Your task to perform on an android device: Go to accessibility settings Image 0: 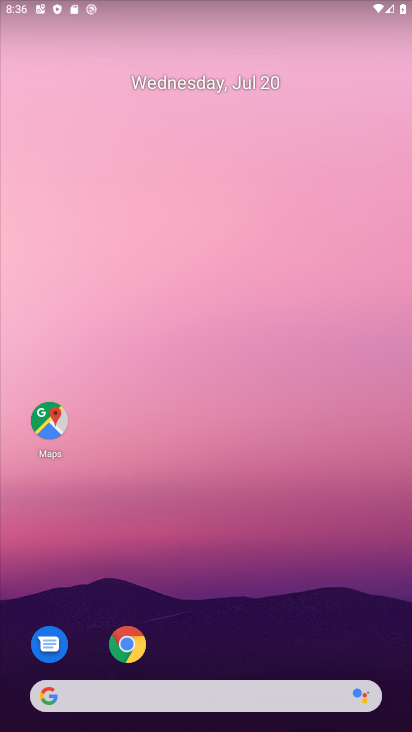
Step 0: drag from (243, 640) to (241, 276)
Your task to perform on an android device: Go to accessibility settings Image 1: 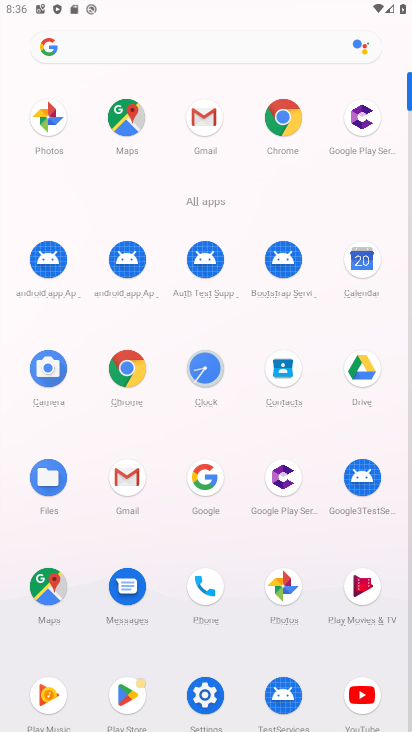
Step 1: click (219, 695)
Your task to perform on an android device: Go to accessibility settings Image 2: 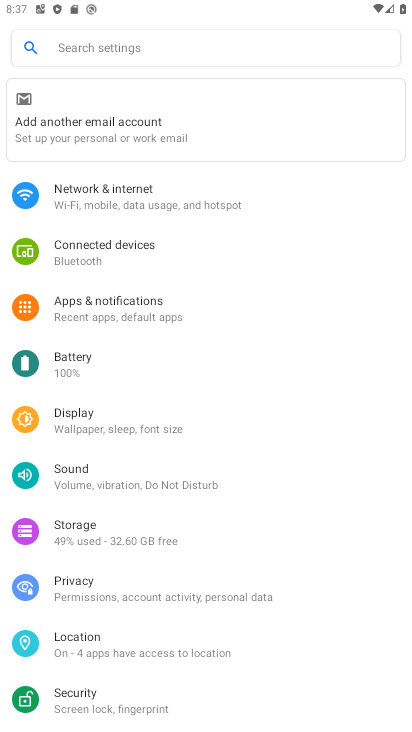
Step 2: drag from (160, 590) to (156, 406)
Your task to perform on an android device: Go to accessibility settings Image 3: 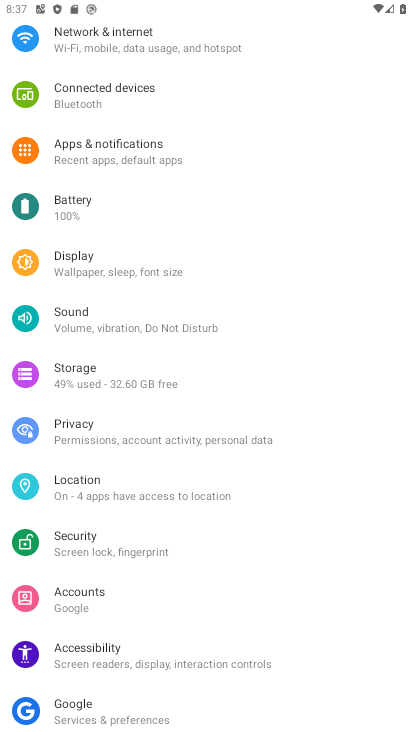
Step 3: click (109, 659)
Your task to perform on an android device: Go to accessibility settings Image 4: 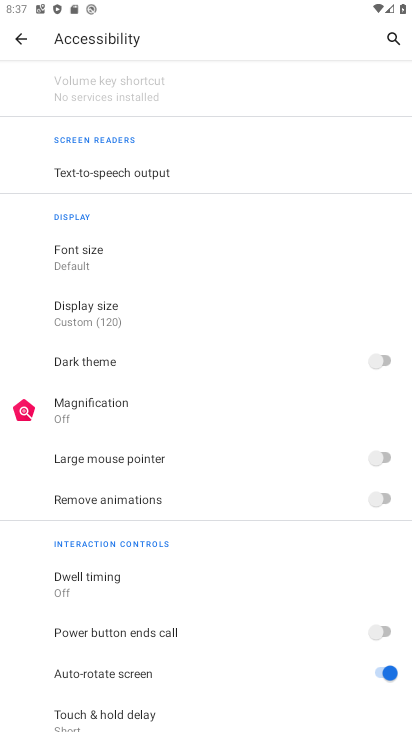
Step 4: click (109, 659)
Your task to perform on an android device: Go to accessibility settings Image 5: 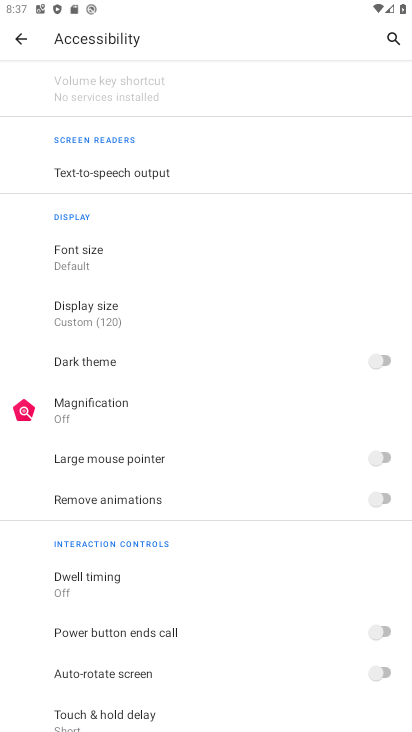
Step 5: task complete